Your task to perform on an android device: Open Chrome and go to the settings page Image 0: 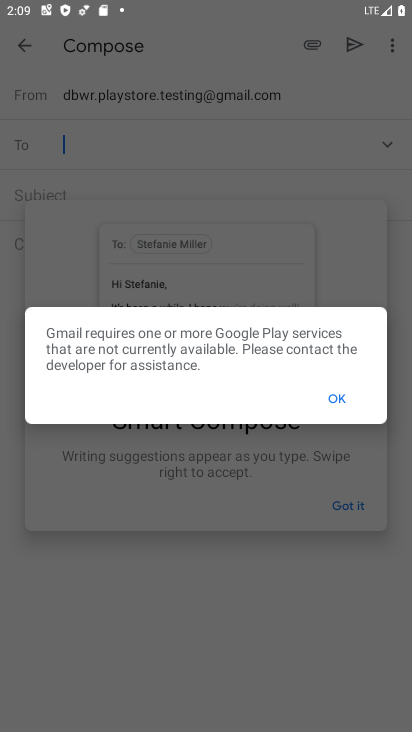
Step 0: press home button
Your task to perform on an android device: Open Chrome and go to the settings page Image 1: 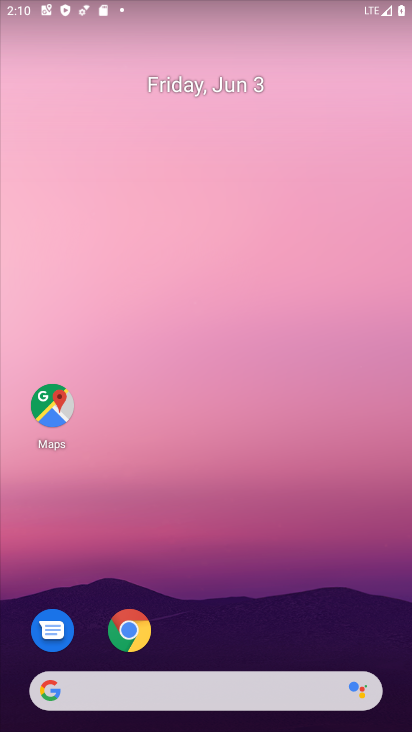
Step 1: click (134, 631)
Your task to perform on an android device: Open Chrome and go to the settings page Image 2: 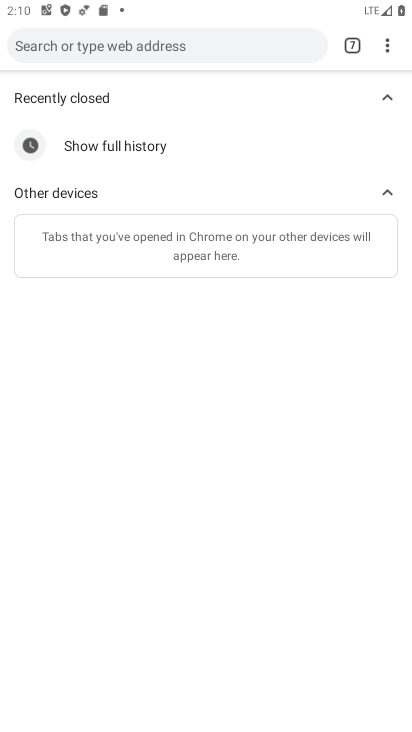
Step 2: click (386, 52)
Your task to perform on an android device: Open Chrome and go to the settings page Image 3: 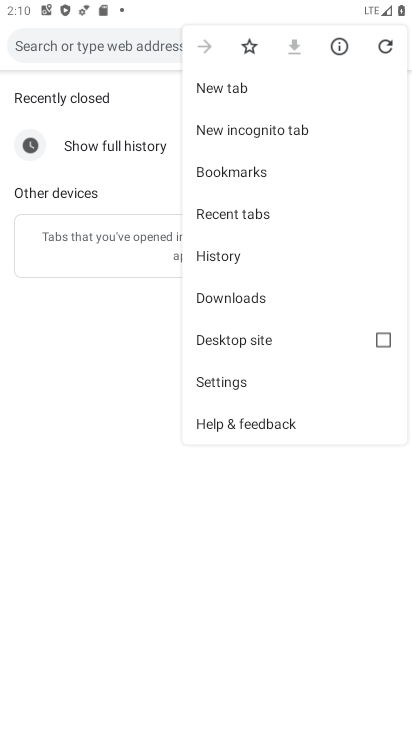
Step 3: click (221, 380)
Your task to perform on an android device: Open Chrome and go to the settings page Image 4: 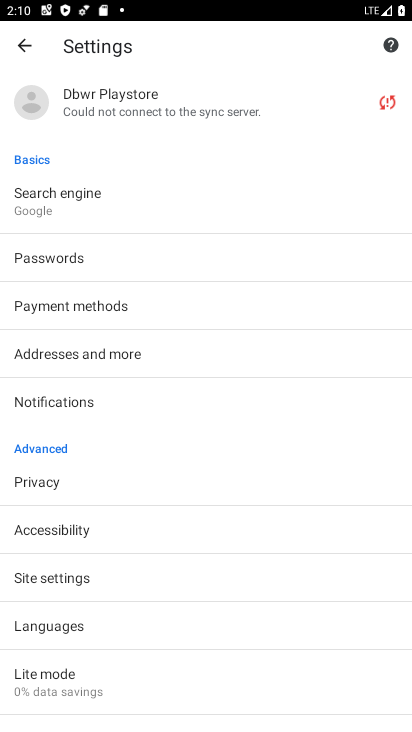
Step 4: task complete